Your task to perform on an android device: Go to Yahoo.com Image 0: 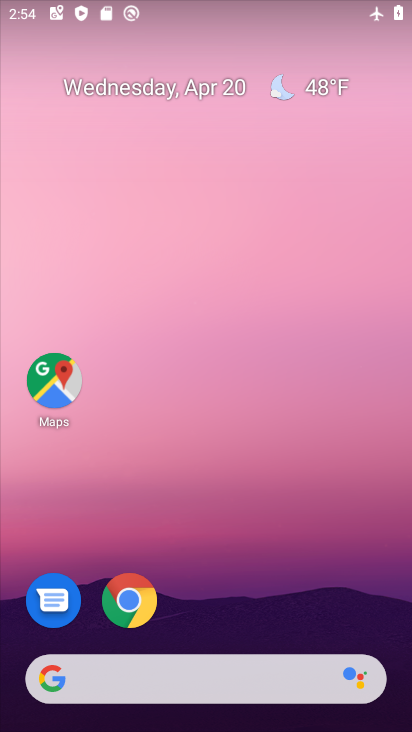
Step 0: drag from (303, 547) to (315, 63)
Your task to perform on an android device: Go to Yahoo.com Image 1: 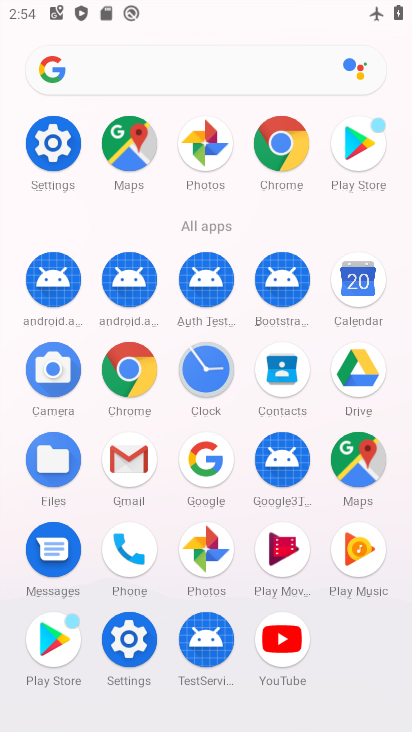
Step 1: click (268, 149)
Your task to perform on an android device: Go to Yahoo.com Image 2: 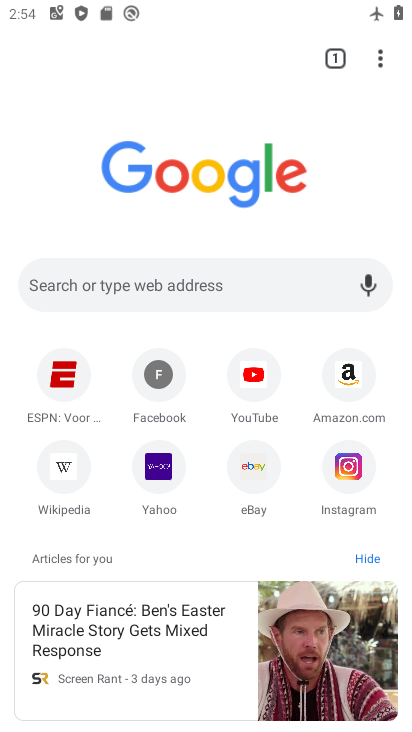
Step 2: click (163, 481)
Your task to perform on an android device: Go to Yahoo.com Image 3: 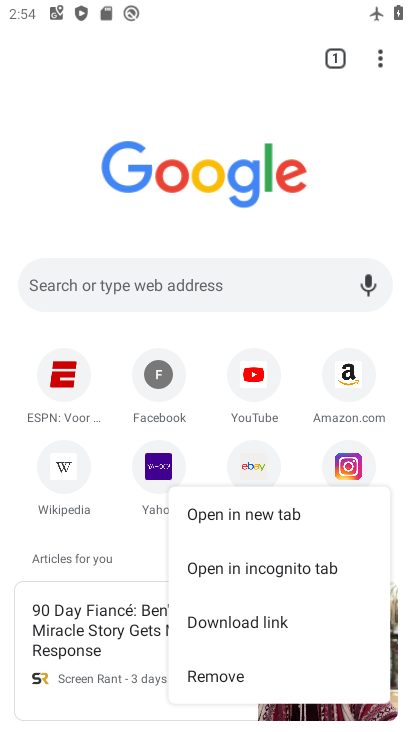
Step 3: click (148, 463)
Your task to perform on an android device: Go to Yahoo.com Image 4: 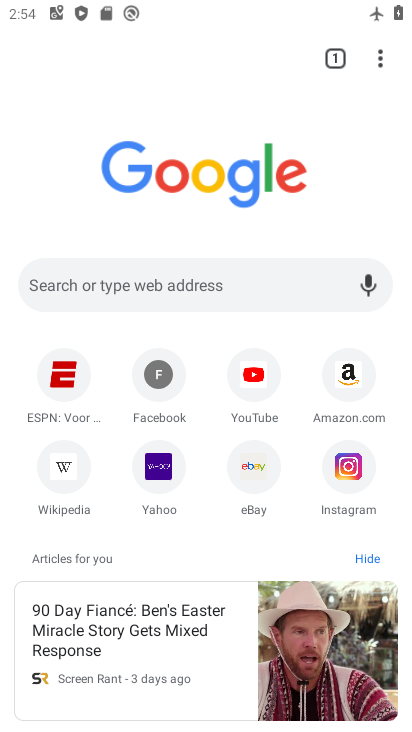
Step 4: click (157, 467)
Your task to perform on an android device: Go to Yahoo.com Image 5: 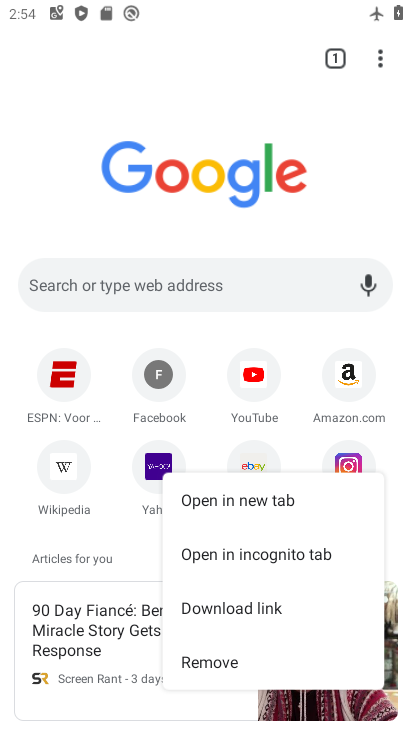
Step 5: click (157, 467)
Your task to perform on an android device: Go to Yahoo.com Image 6: 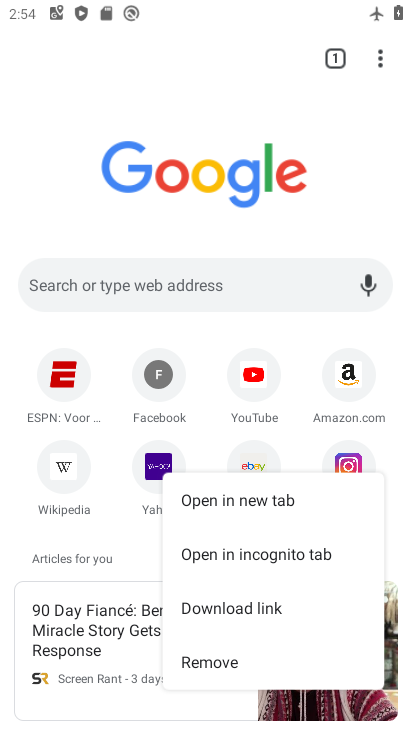
Step 6: click (155, 463)
Your task to perform on an android device: Go to Yahoo.com Image 7: 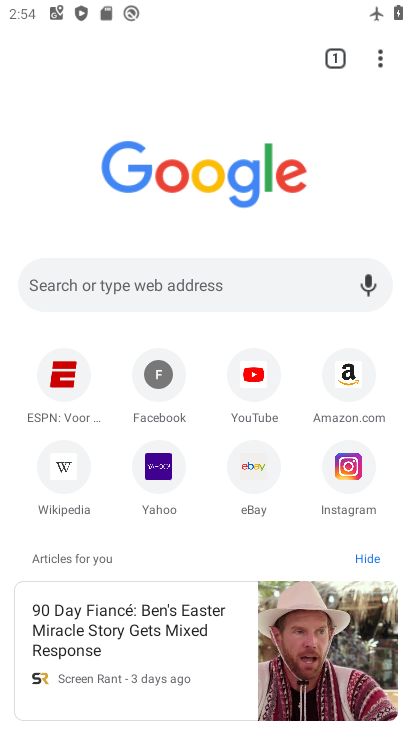
Step 7: click (156, 466)
Your task to perform on an android device: Go to Yahoo.com Image 8: 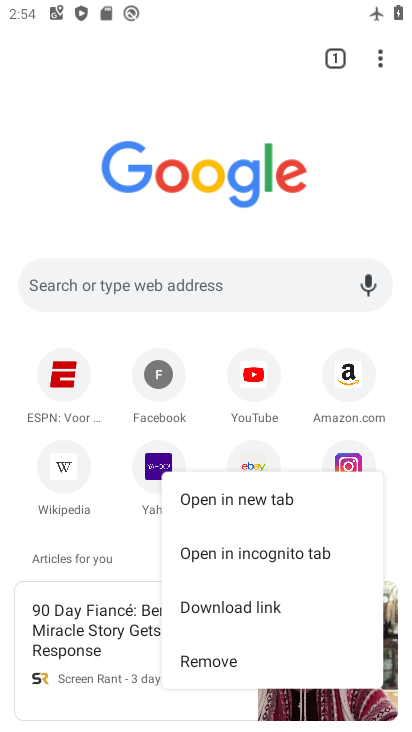
Step 8: click (197, 503)
Your task to perform on an android device: Go to Yahoo.com Image 9: 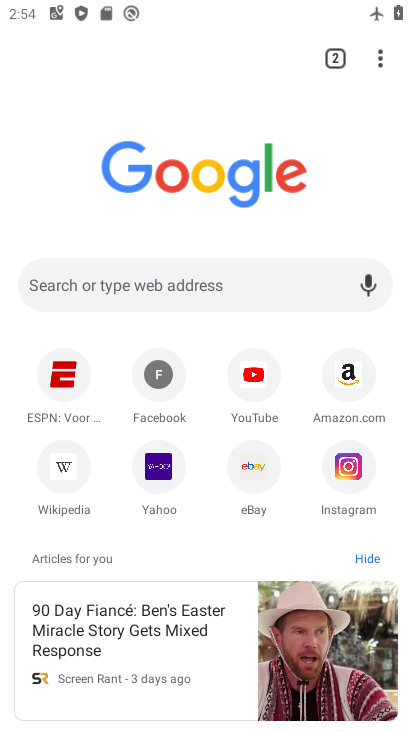
Step 9: click (144, 455)
Your task to perform on an android device: Go to Yahoo.com Image 10: 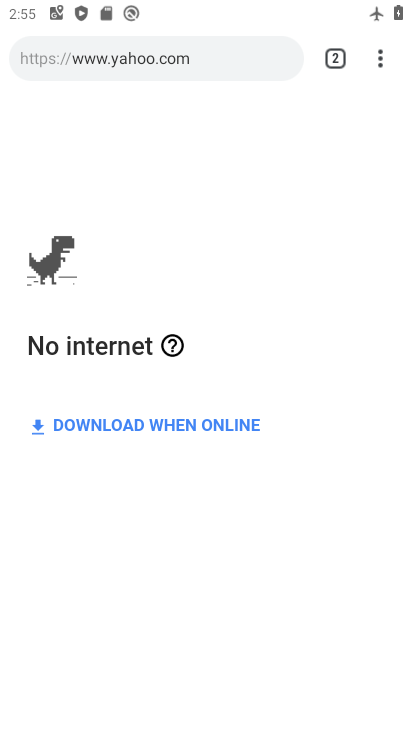
Step 10: task complete